Your task to perform on an android device: turn off javascript in the chrome app Image 0: 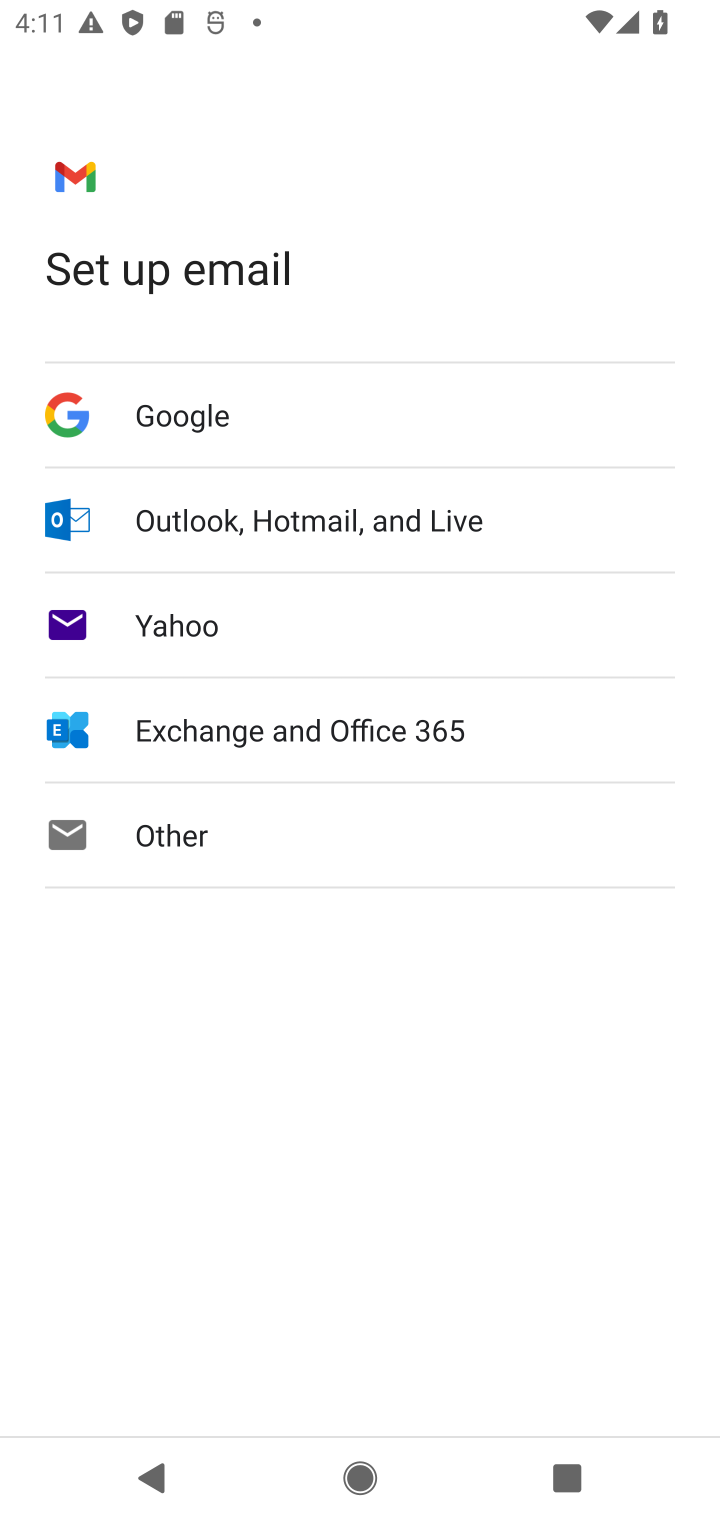
Step 0: press home button
Your task to perform on an android device: turn off javascript in the chrome app Image 1: 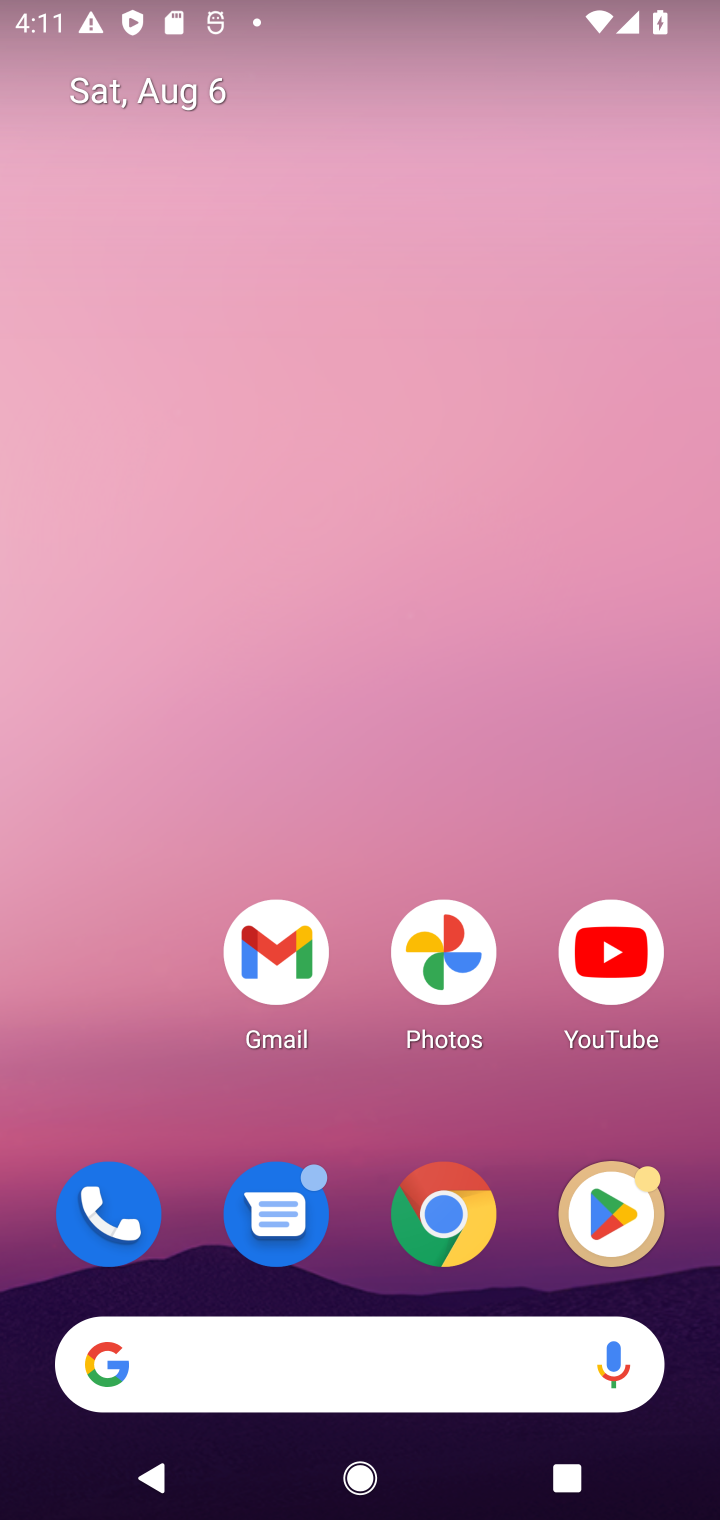
Step 1: click (440, 1224)
Your task to perform on an android device: turn off javascript in the chrome app Image 2: 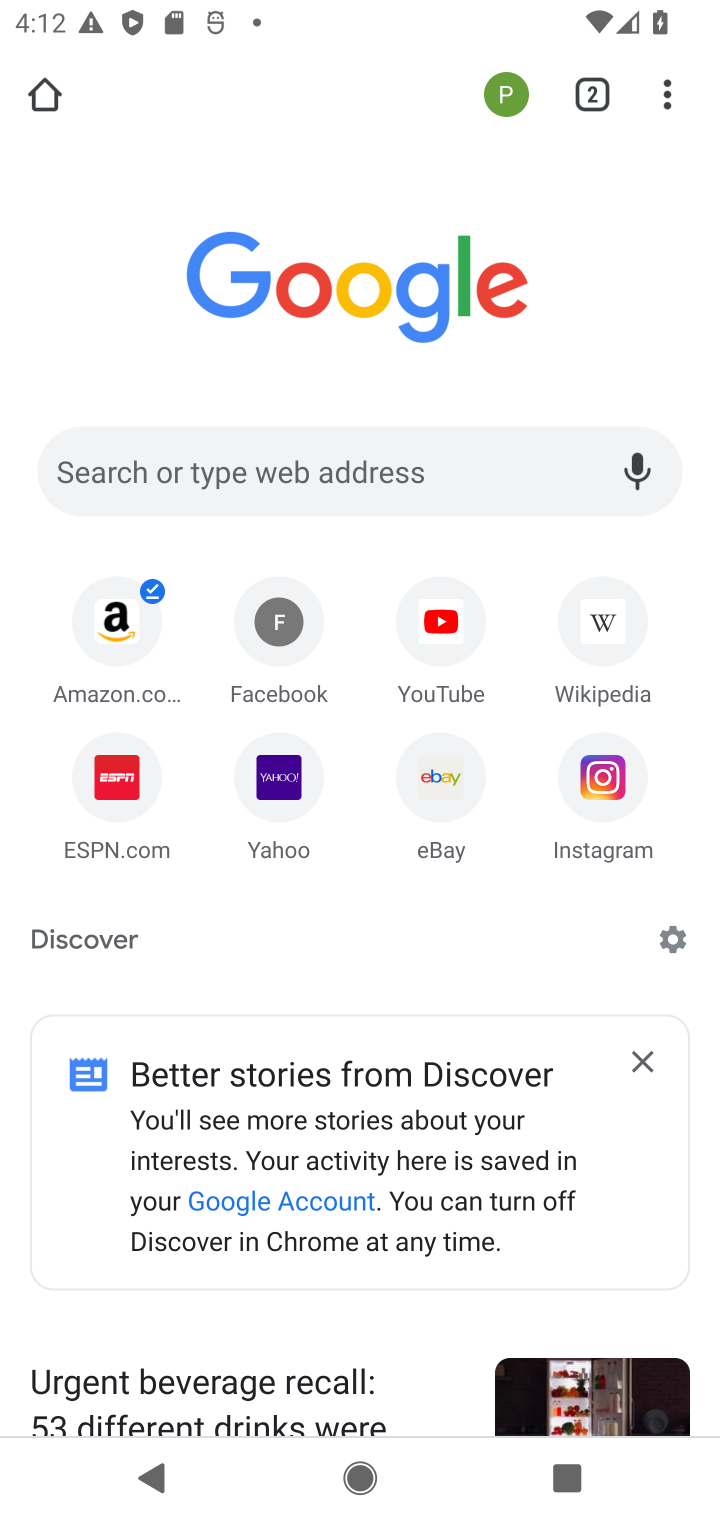
Step 2: click (661, 95)
Your task to perform on an android device: turn off javascript in the chrome app Image 3: 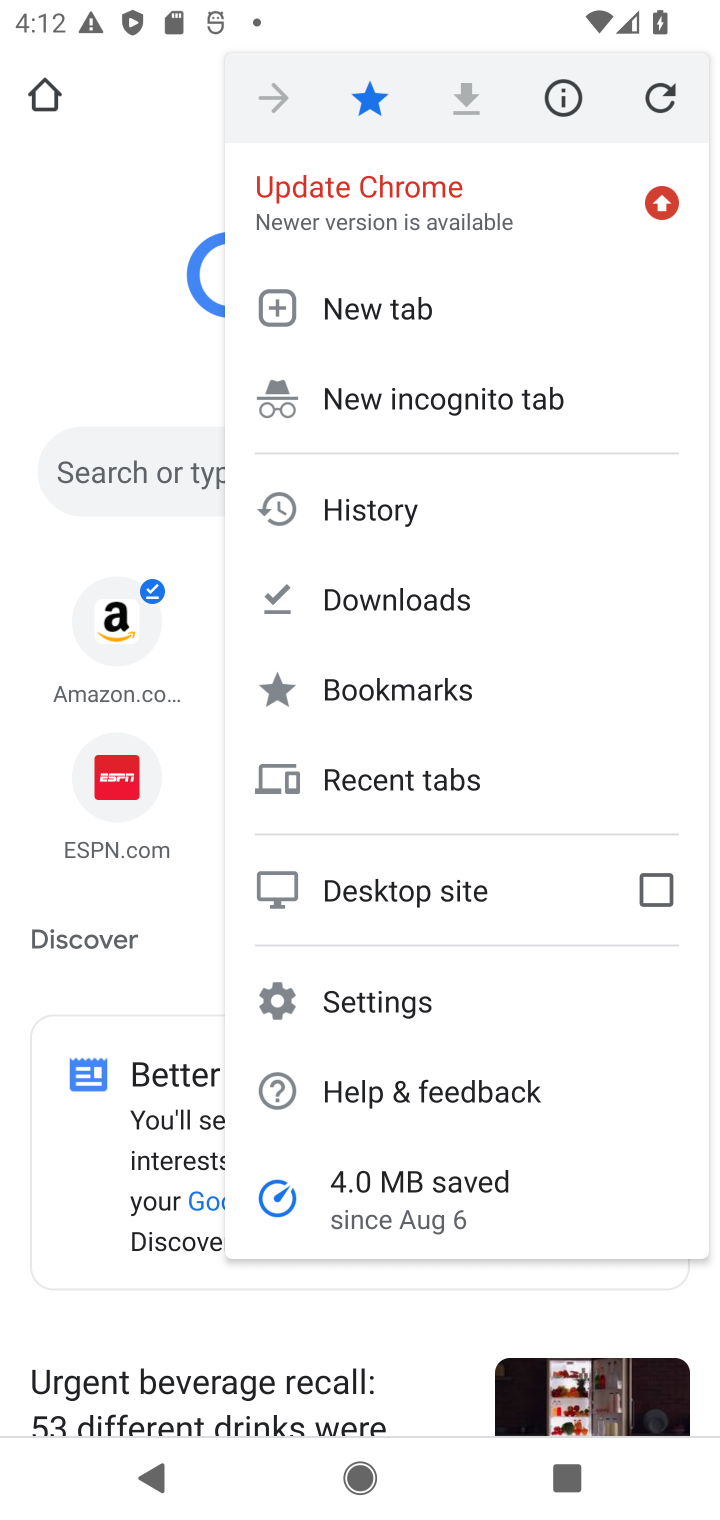
Step 3: click (388, 996)
Your task to perform on an android device: turn off javascript in the chrome app Image 4: 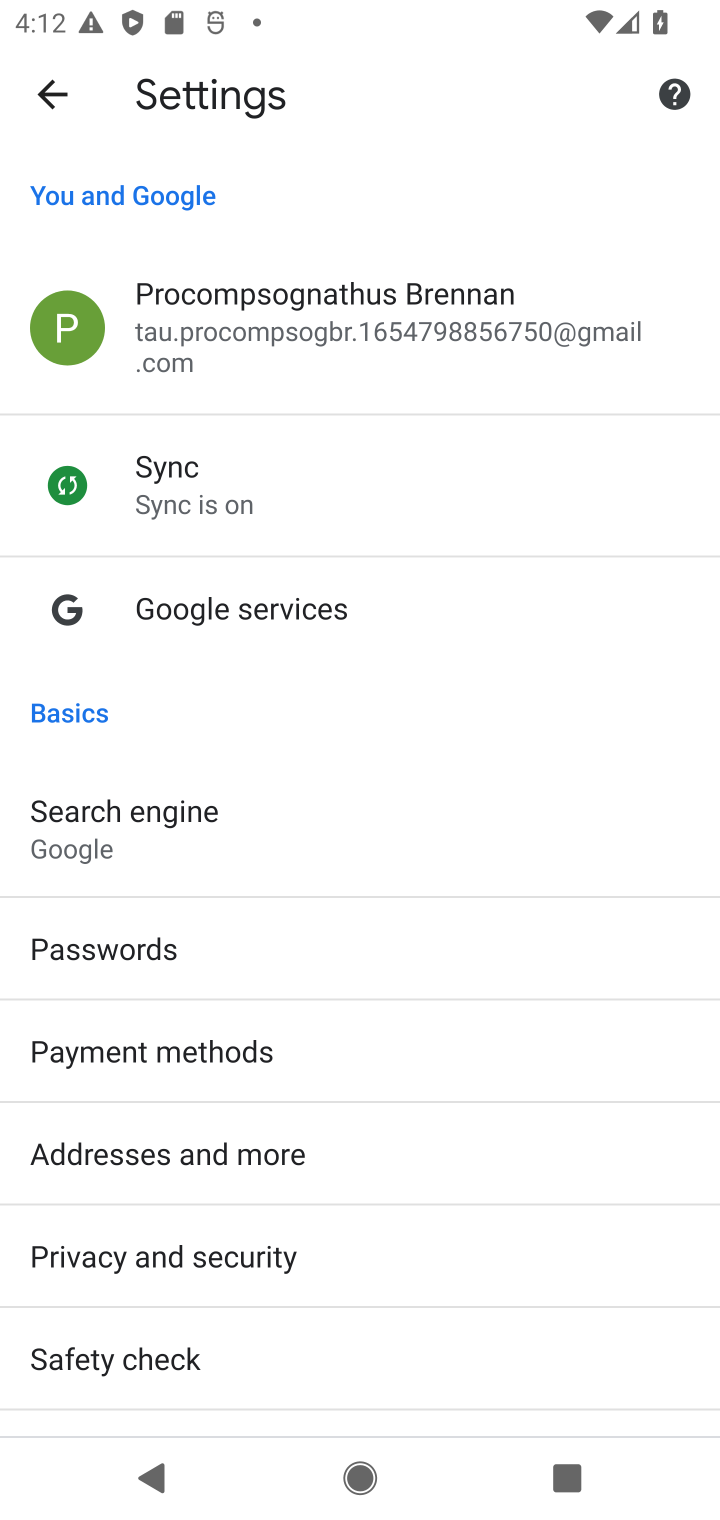
Step 4: drag from (209, 1032) to (304, 523)
Your task to perform on an android device: turn off javascript in the chrome app Image 5: 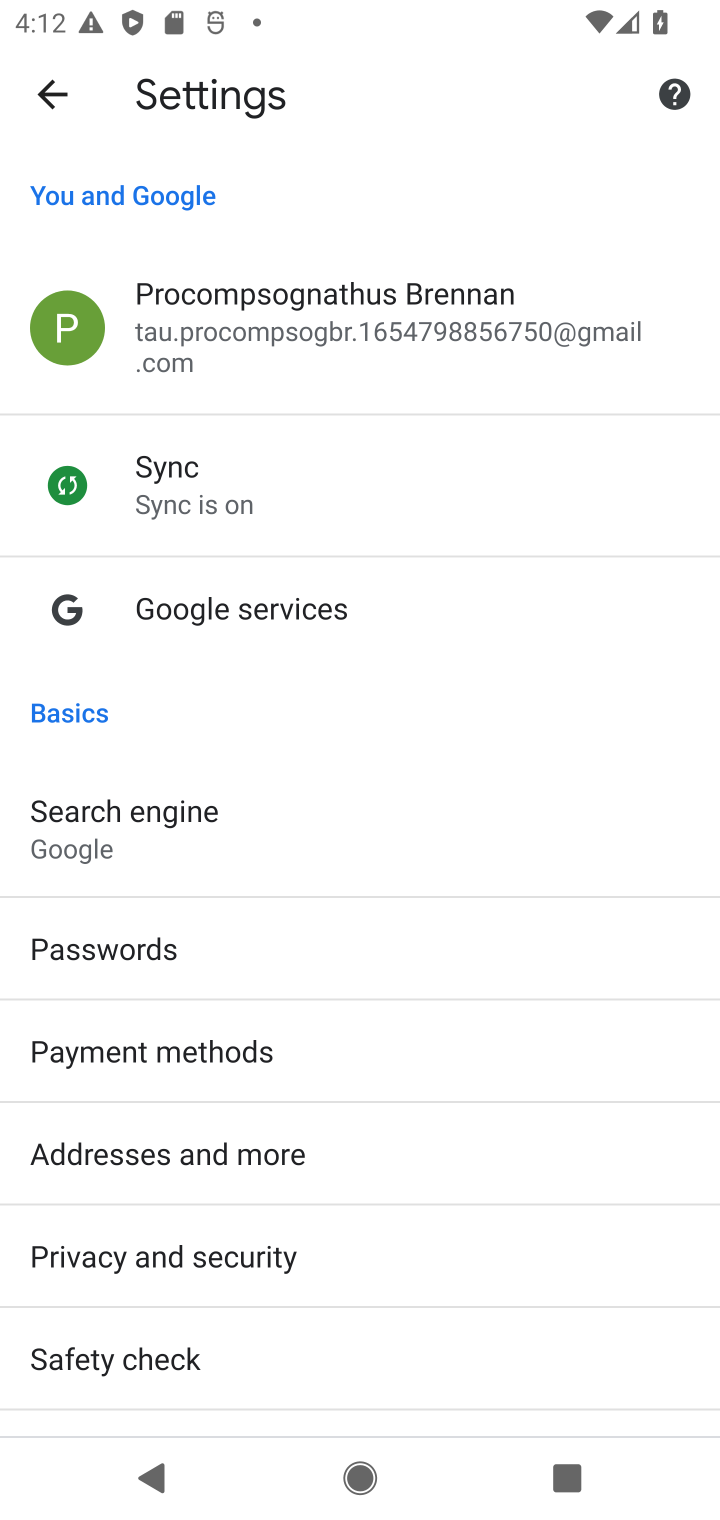
Step 5: drag from (415, 702) to (452, 610)
Your task to perform on an android device: turn off javascript in the chrome app Image 6: 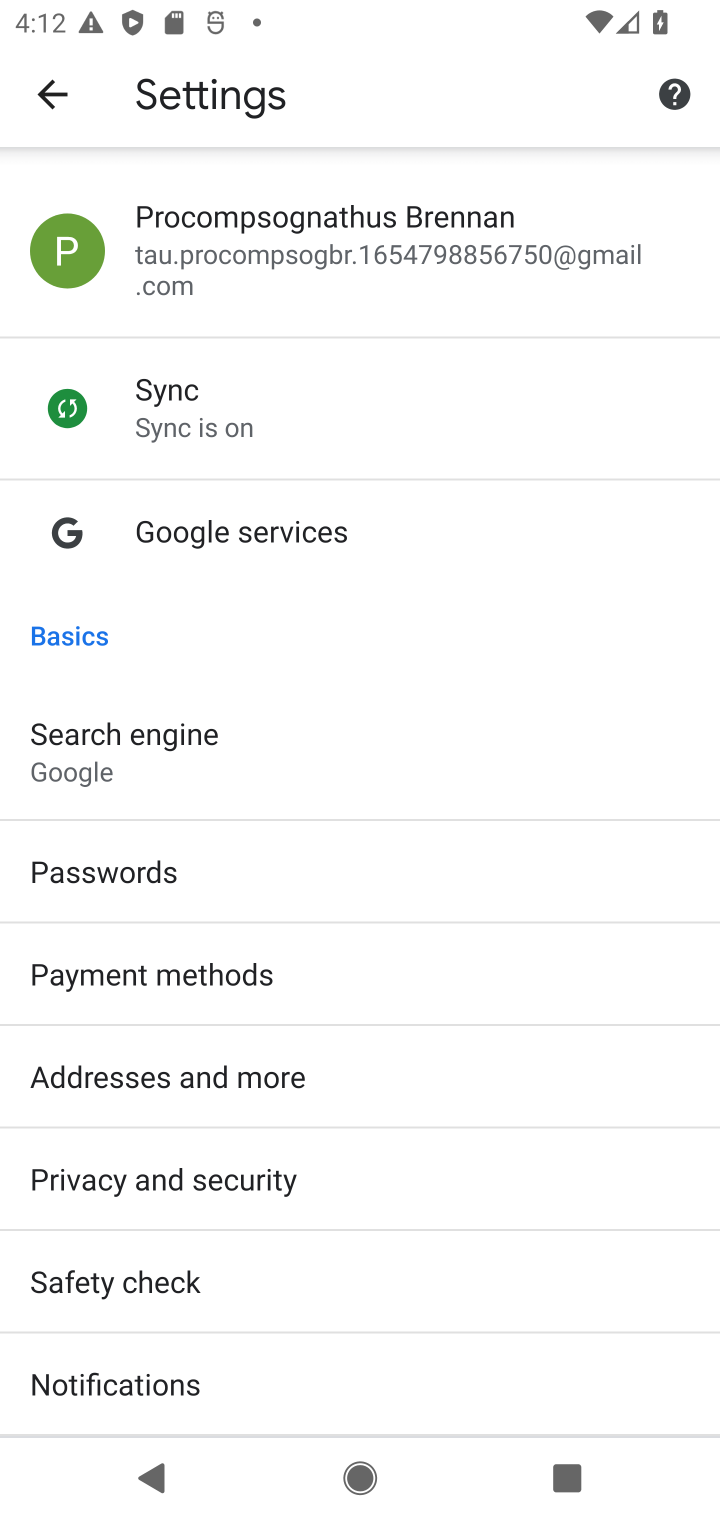
Step 6: drag from (177, 1146) to (184, 429)
Your task to perform on an android device: turn off javascript in the chrome app Image 7: 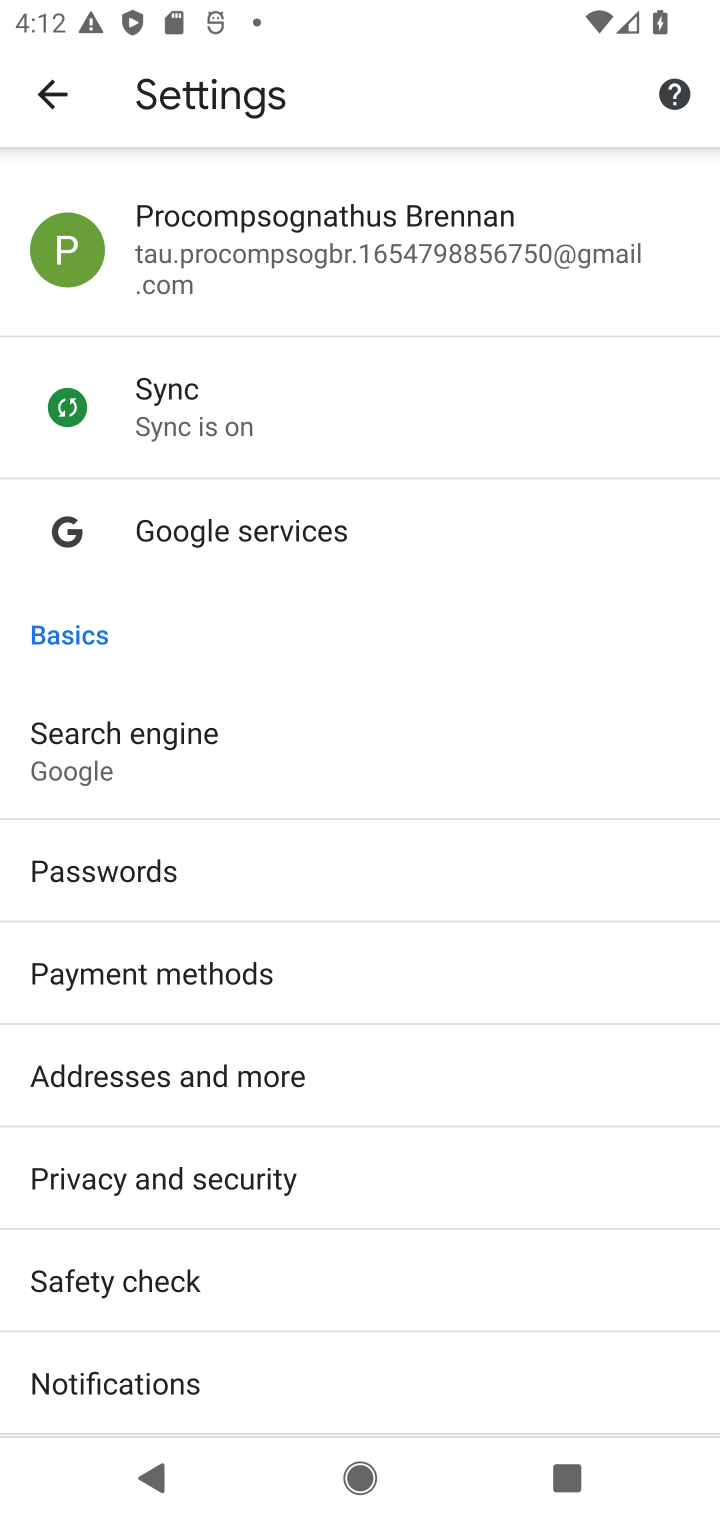
Step 7: drag from (214, 1338) to (414, 452)
Your task to perform on an android device: turn off javascript in the chrome app Image 8: 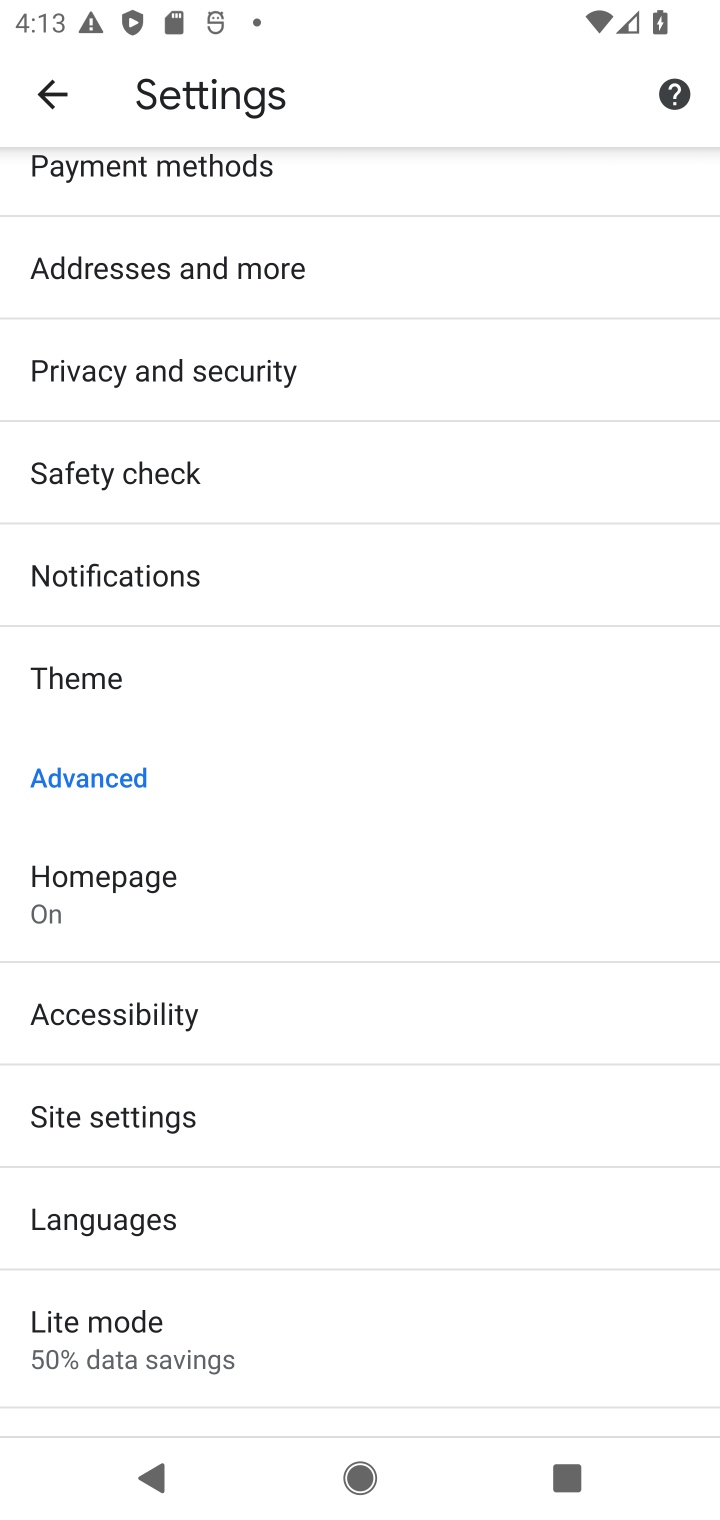
Step 8: click (153, 1109)
Your task to perform on an android device: turn off javascript in the chrome app Image 9: 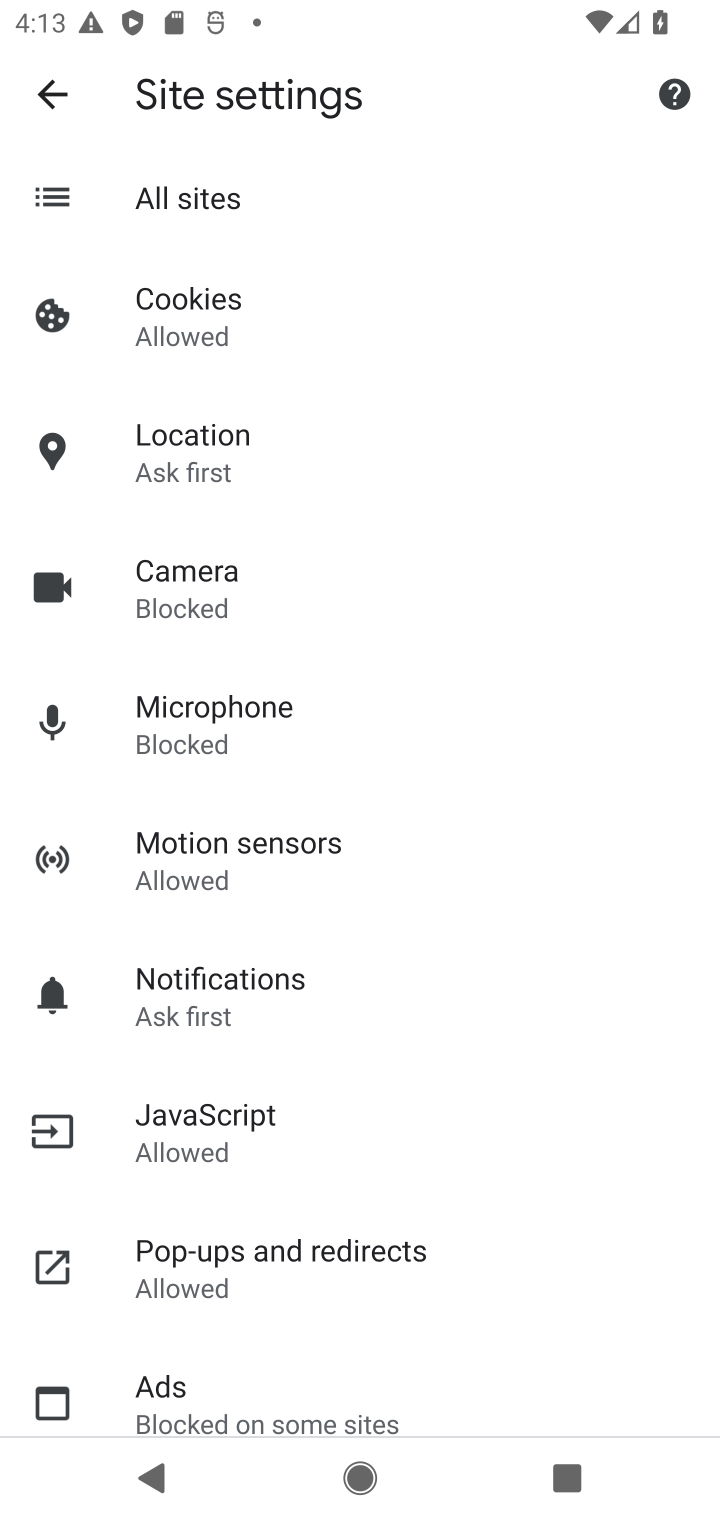
Step 9: click (170, 1117)
Your task to perform on an android device: turn off javascript in the chrome app Image 10: 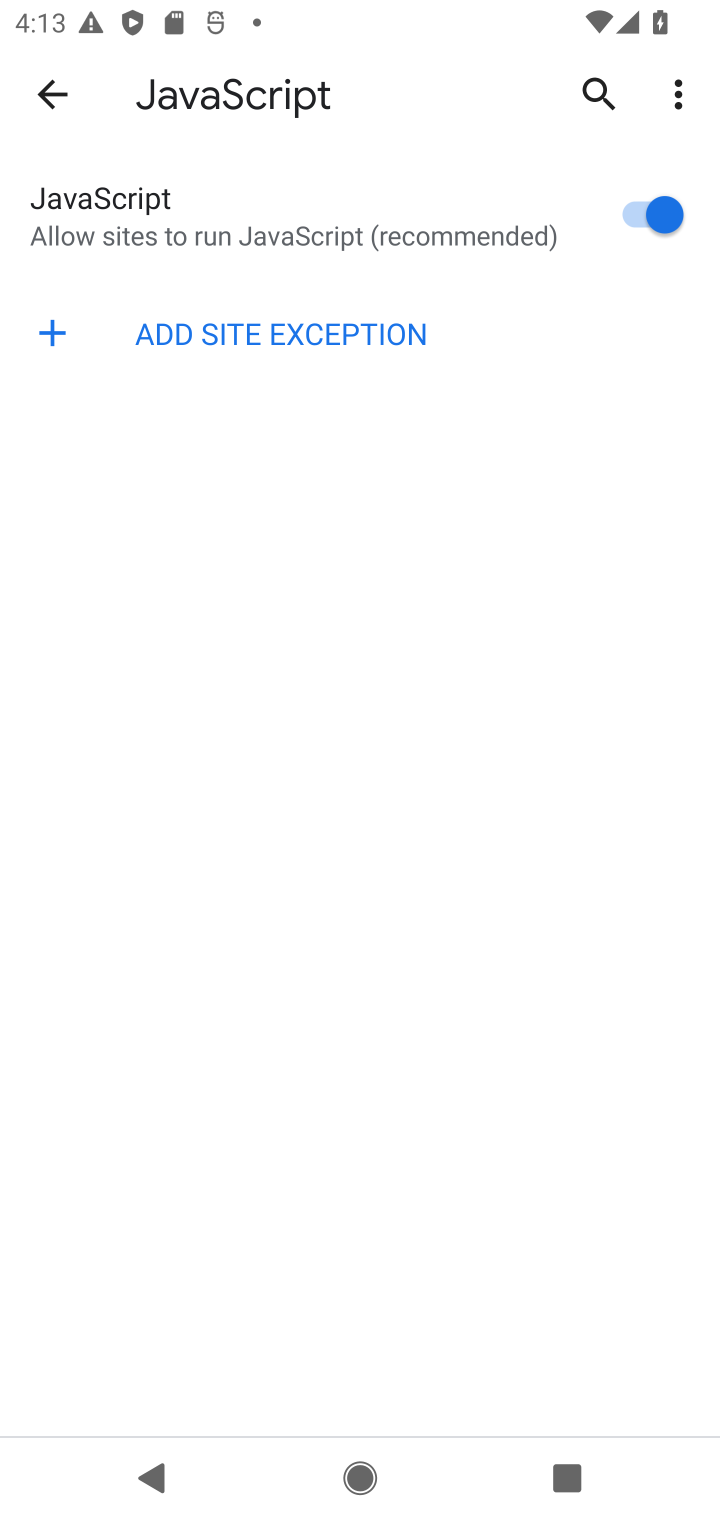
Step 10: click (649, 222)
Your task to perform on an android device: turn off javascript in the chrome app Image 11: 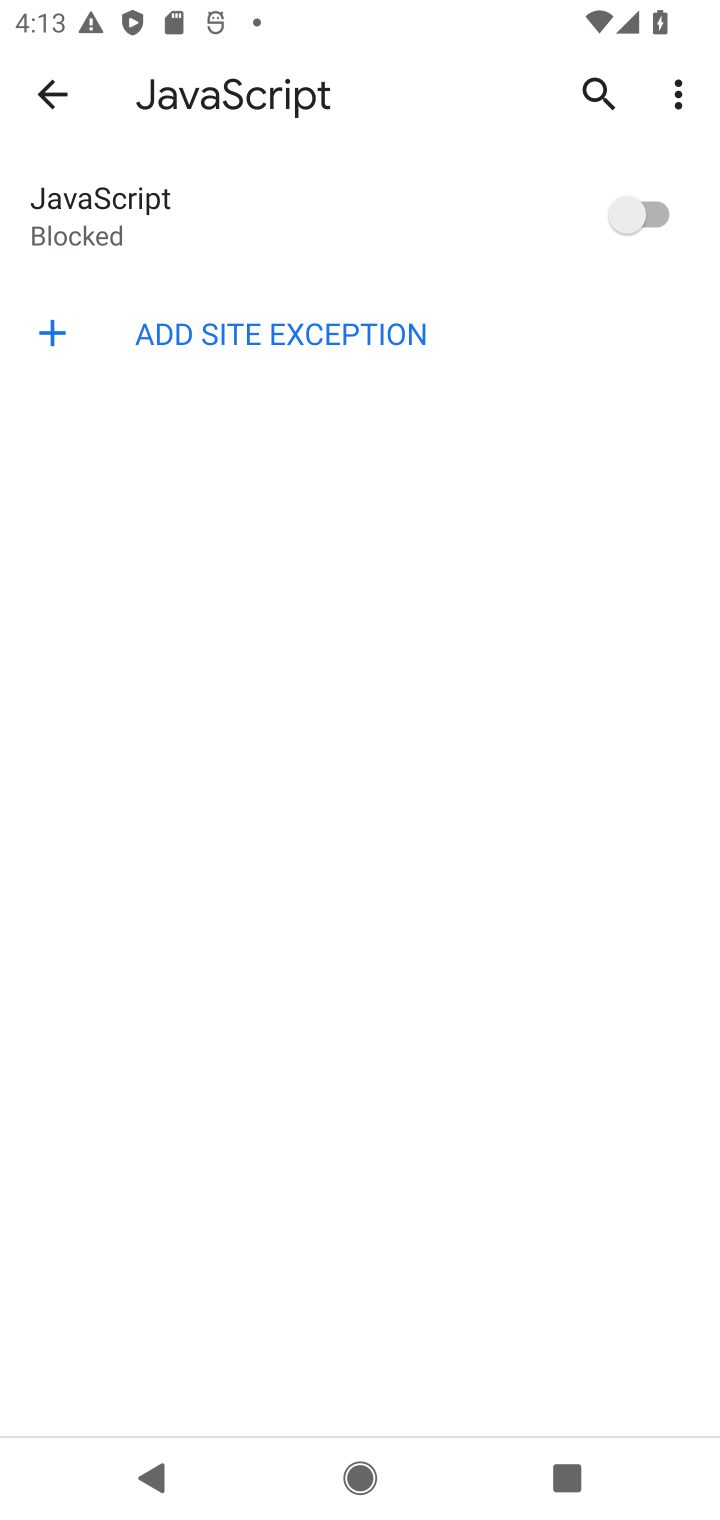
Step 11: task complete